Your task to perform on an android device: Do I have any events tomorrow? Image 0: 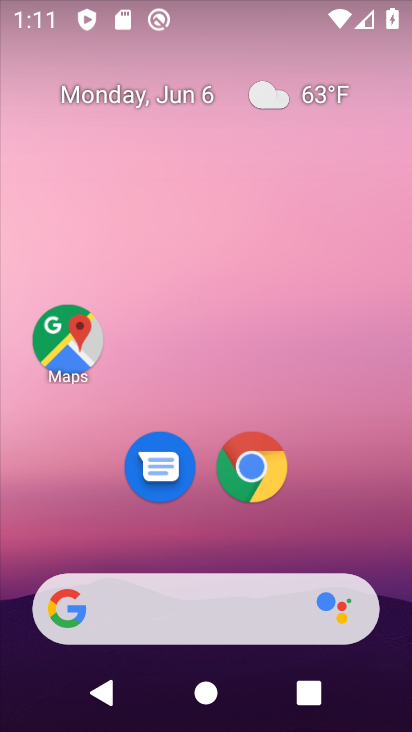
Step 0: click (399, 621)
Your task to perform on an android device: Do I have any events tomorrow? Image 1: 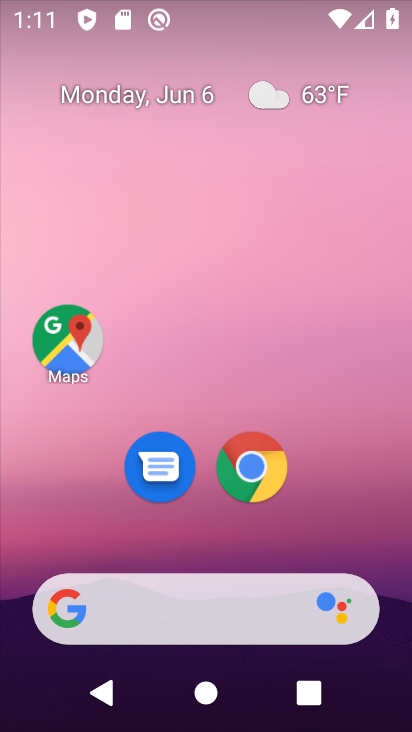
Step 1: click (327, 30)
Your task to perform on an android device: Do I have any events tomorrow? Image 2: 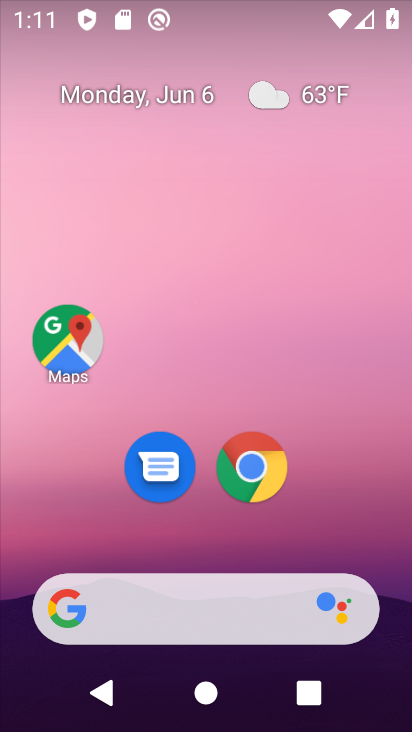
Step 2: drag from (387, 580) to (247, 54)
Your task to perform on an android device: Do I have any events tomorrow? Image 3: 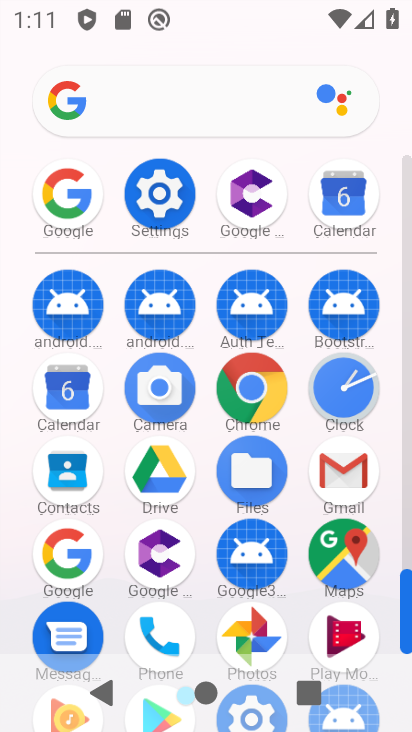
Step 3: click (71, 397)
Your task to perform on an android device: Do I have any events tomorrow? Image 4: 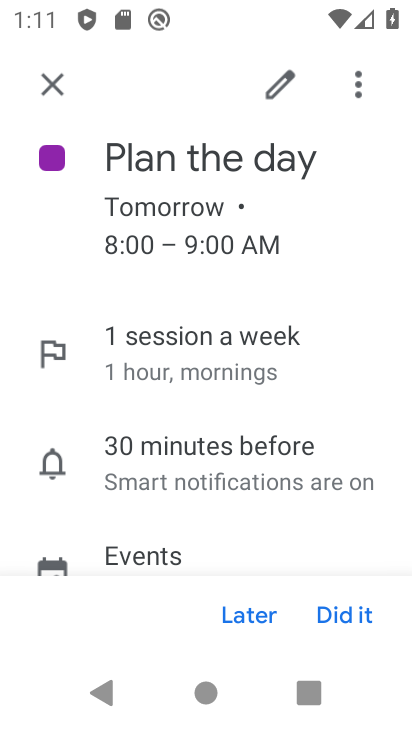
Step 4: task complete